Your task to perform on an android device: open device folders in google photos Image 0: 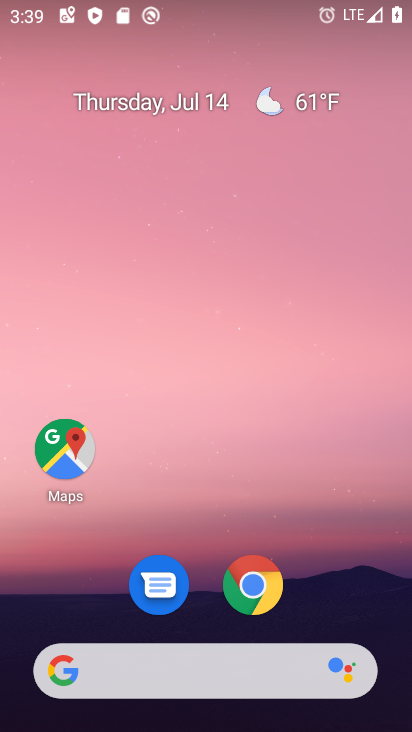
Step 0: drag from (325, 529) to (324, 20)
Your task to perform on an android device: open device folders in google photos Image 1: 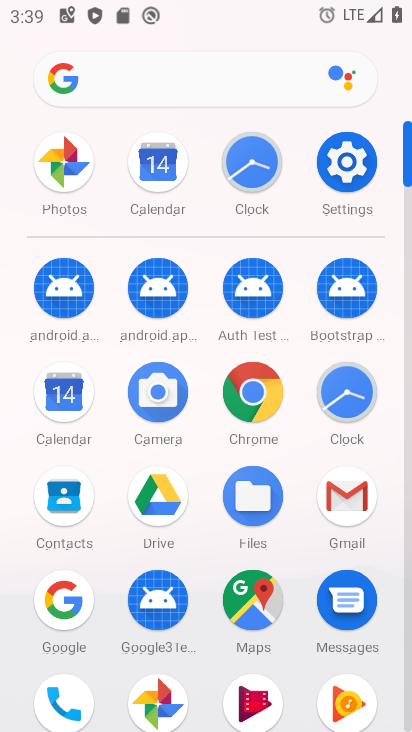
Step 1: click (65, 171)
Your task to perform on an android device: open device folders in google photos Image 2: 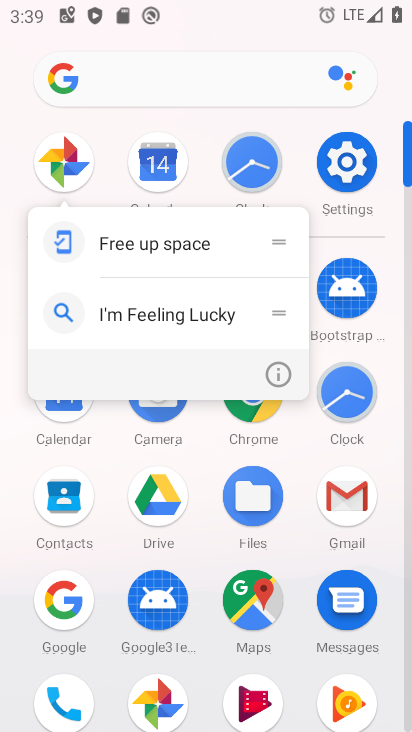
Step 2: click (60, 139)
Your task to perform on an android device: open device folders in google photos Image 3: 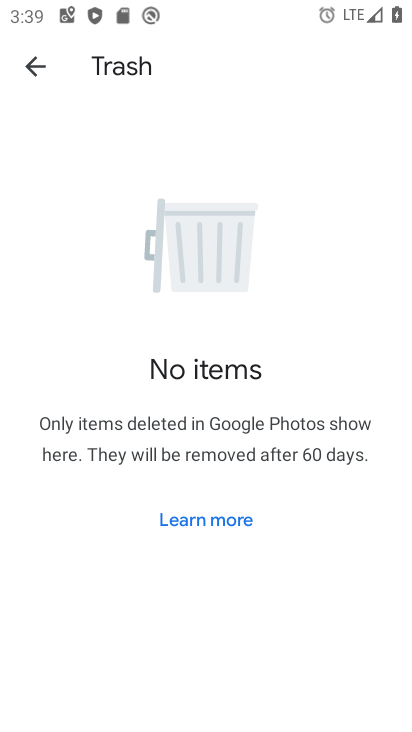
Step 3: click (42, 63)
Your task to perform on an android device: open device folders in google photos Image 4: 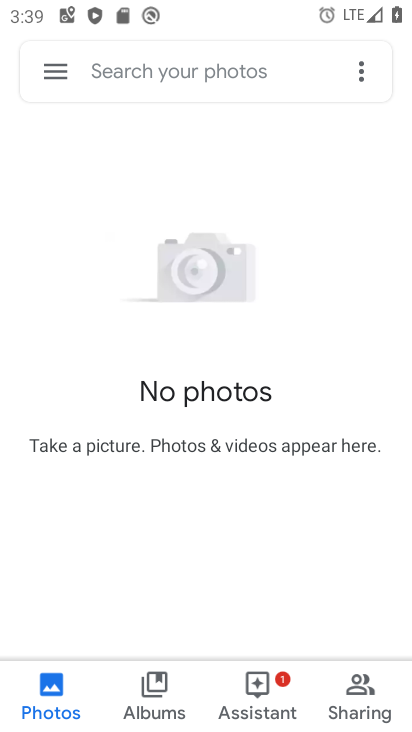
Step 4: click (48, 64)
Your task to perform on an android device: open device folders in google photos Image 5: 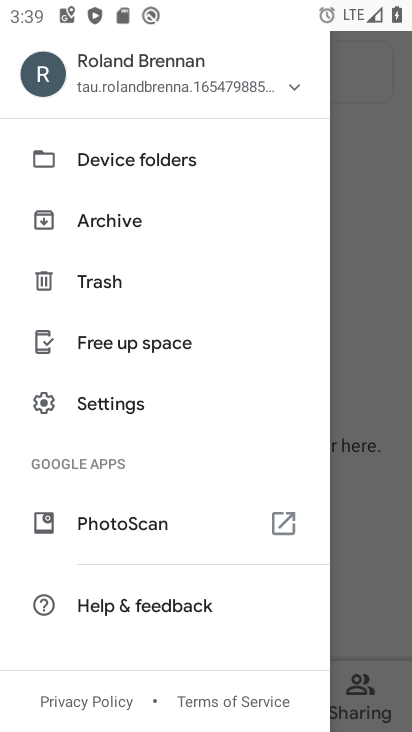
Step 5: click (104, 164)
Your task to perform on an android device: open device folders in google photos Image 6: 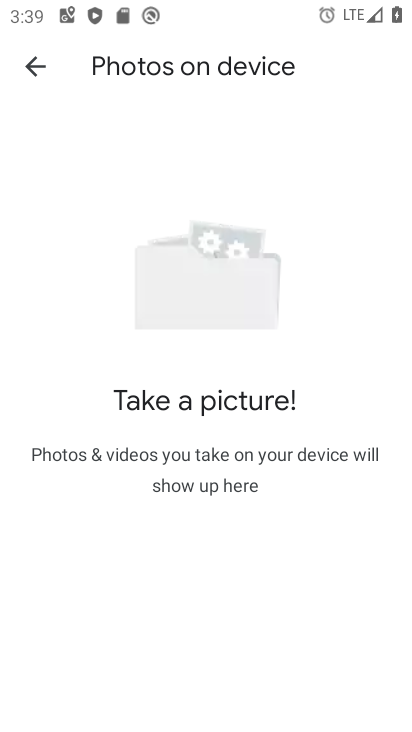
Step 6: task complete